Your task to perform on an android device: Go to settings Image 0: 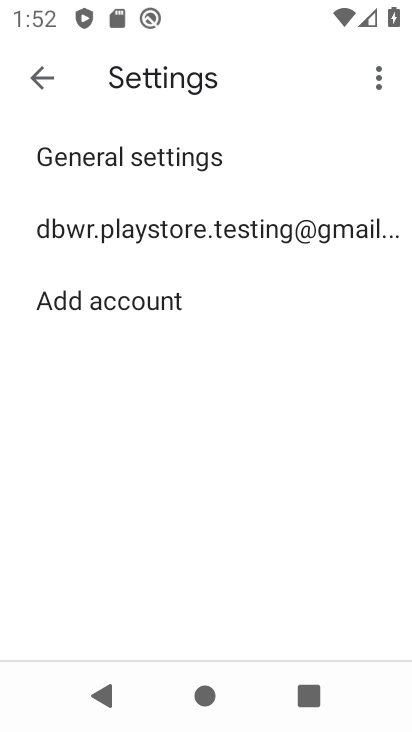
Step 0: press home button
Your task to perform on an android device: Go to settings Image 1: 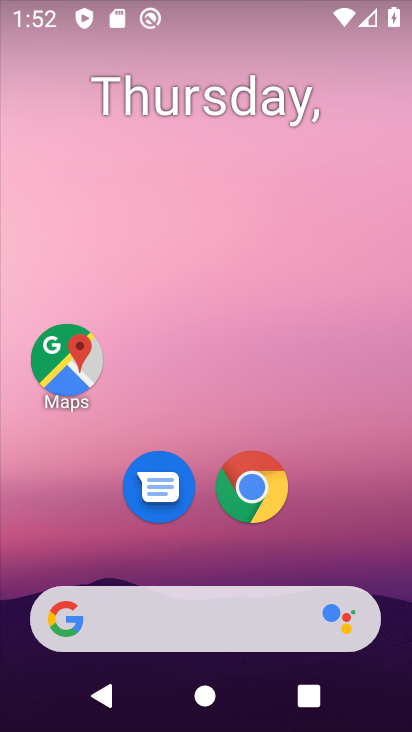
Step 1: drag from (243, 555) to (288, 91)
Your task to perform on an android device: Go to settings Image 2: 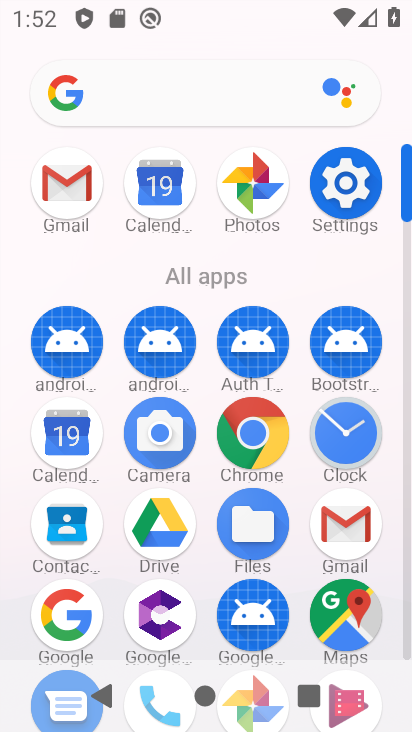
Step 2: click (349, 183)
Your task to perform on an android device: Go to settings Image 3: 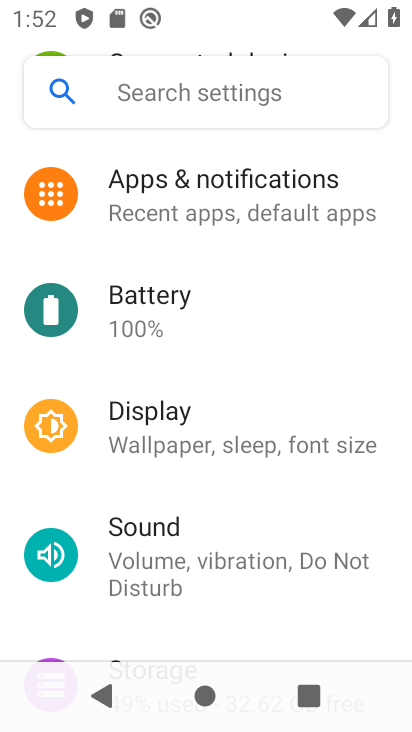
Step 3: task complete